Your task to perform on an android device: turn on priority inbox in the gmail app Image 0: 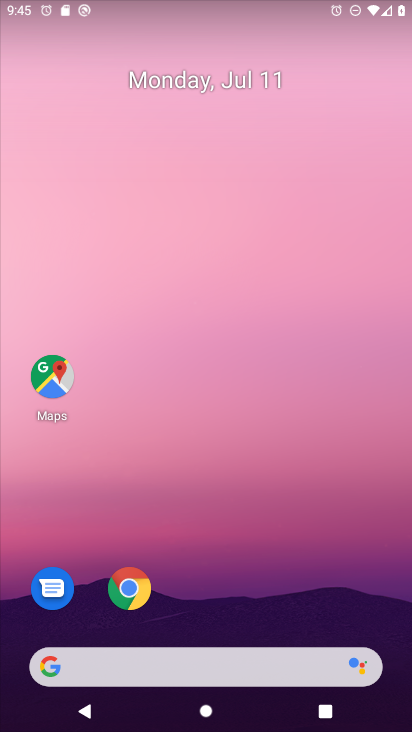
Step 0: drag from (189, 671) to (274, 58)
Your task to perform on an android device: turn on priority inbox in the gmail app Image 1: 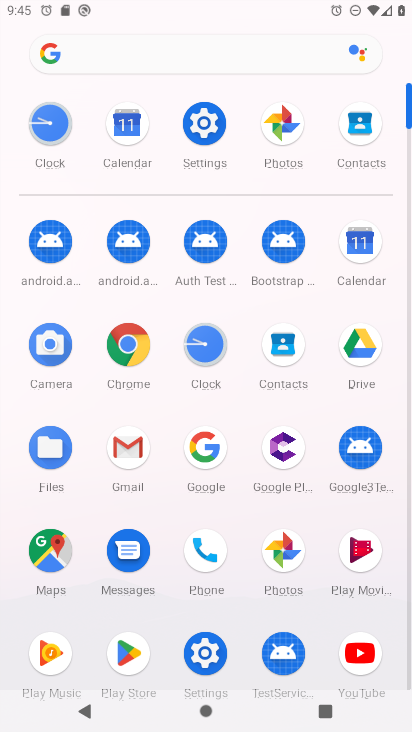
Step 1: click (131, 454)
Your task to perform on an android device: turn on priority inbox in the gmail app Image 2: 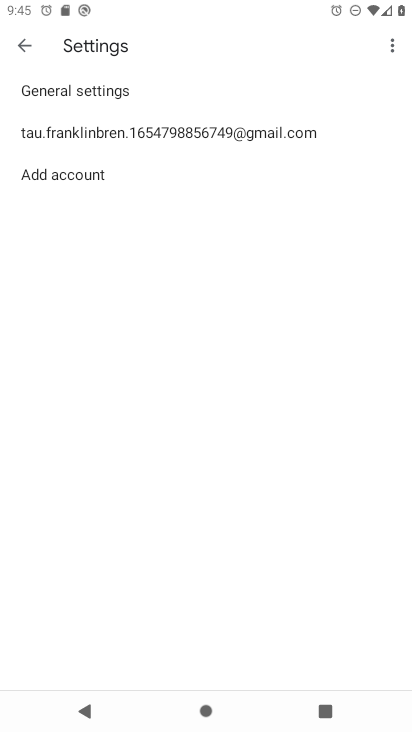
Step 2: click (249, 129)
Your task to perform on an android device: turn on priority inbox in the gmail app Image 3: 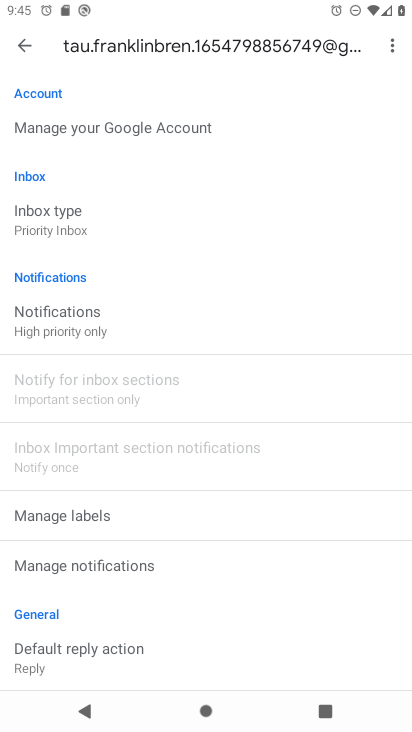
Step 3: click (52, 225)
Your task to perform on an android device: turn on priority inbox in the gmail app Image 4: 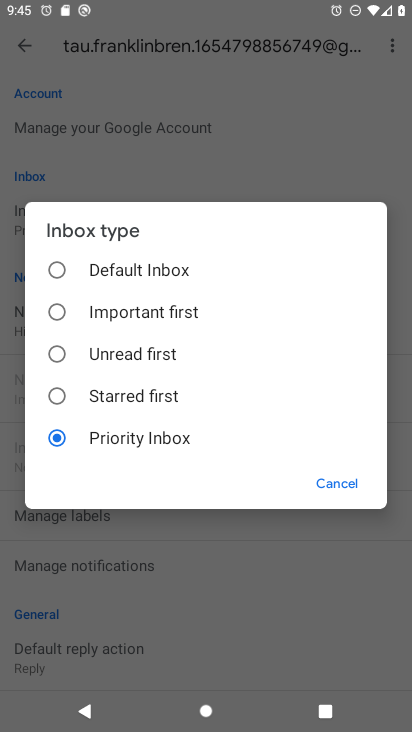
Step 4: task complete